Your task to perform on an android device: Show me popular games on the Play Store Image 0: 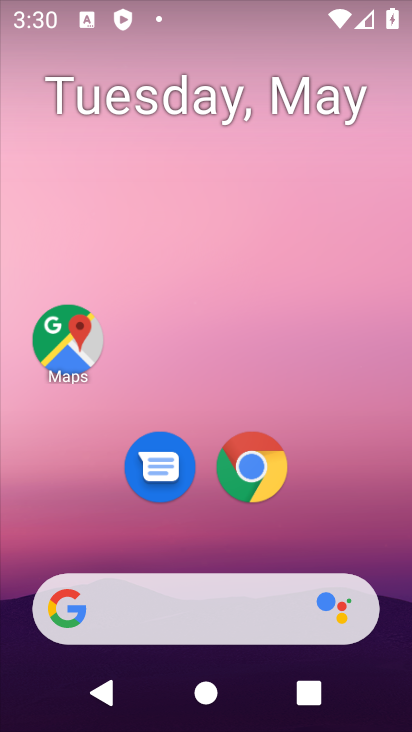
Step 0: task complete